Your task to perform on an android device: open app "Paramount+ | Peak Streaming" (install if not already installed) and enter user name: "fostered@yahoo.com" and password: "strong" Image 0: 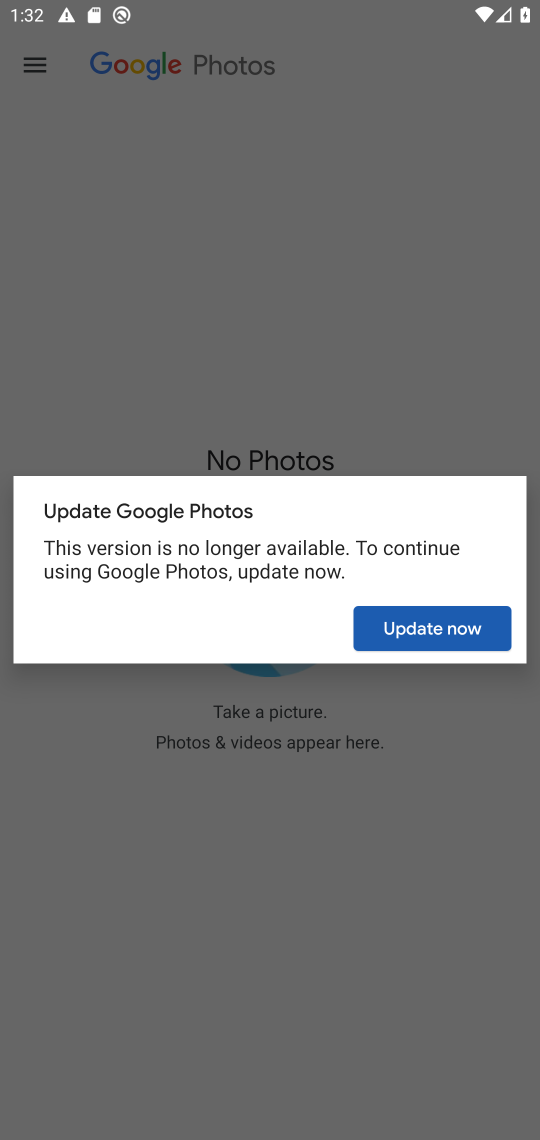
Step 0: task complete